Your task to perform on an android device: Open Chrome and go to settings Image 0: 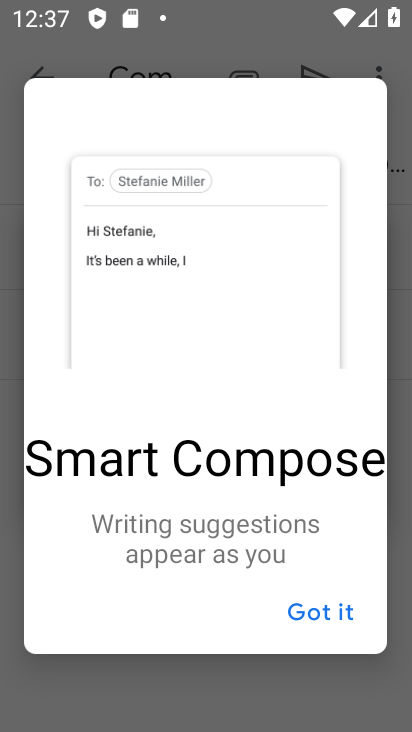
Step 0: press home button
Your task to perform on an android device: Open Chrome and go to settings Image 1: 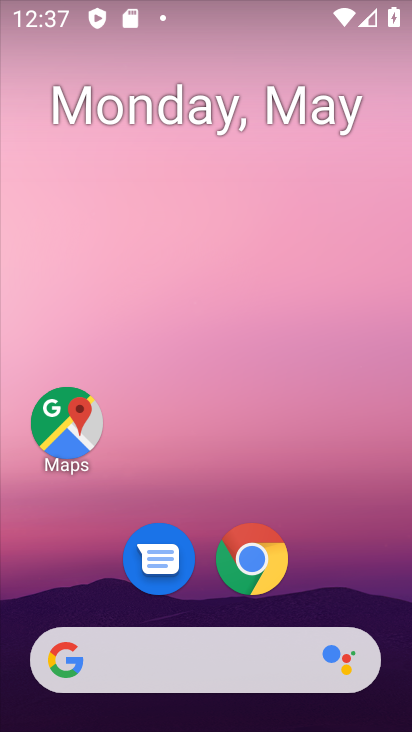
Step 1: click (267, 551)
Your task to perform on an android device: Open Chrome and go to settings Image 2: 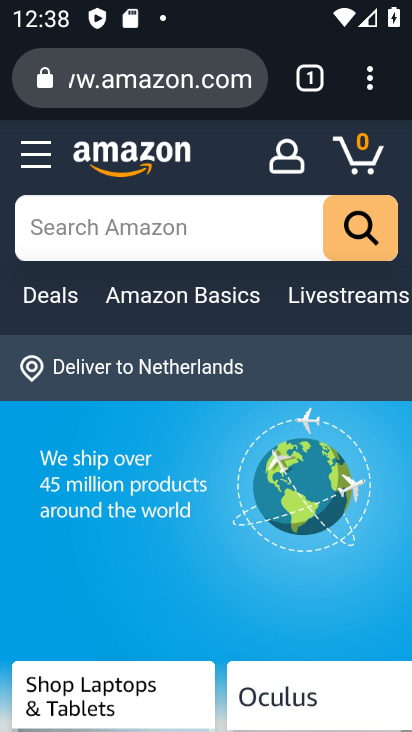
Step 2: click (364, 86)
Your task to perform on an android device: Open Chrome and go to settings Image 3: 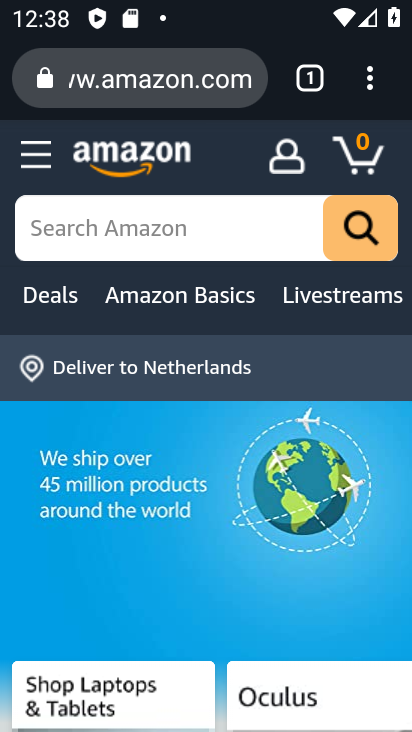
Step 3: click (357, 83)
Your task to perform on an android device: Open Chrome and go to settings Image 4: 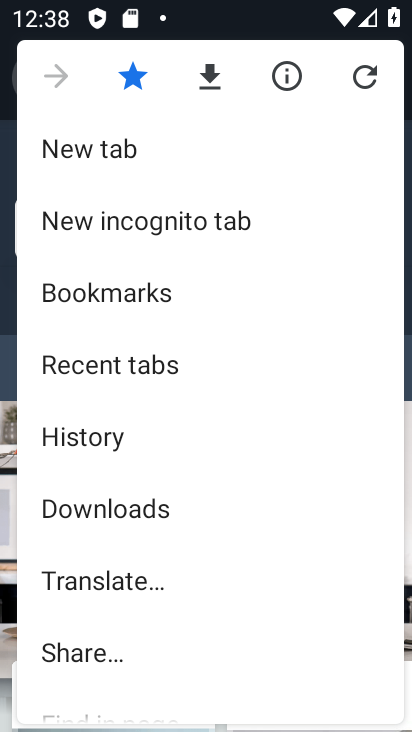
Step 4: drag from (196, 683) to (230, 98)
Your task to perform on an android device: Open Chrome and go to settings Image 5: 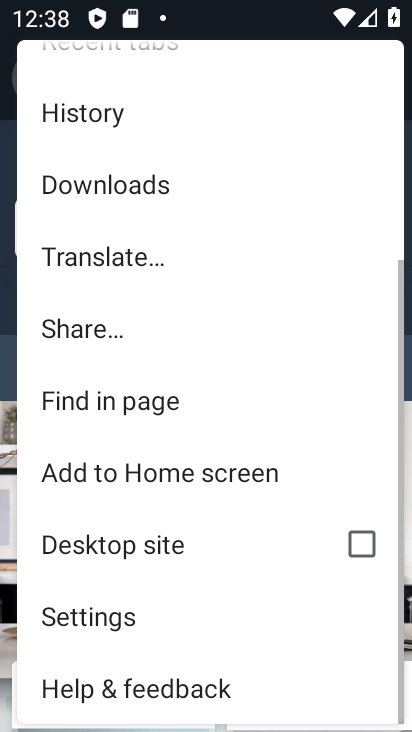
Step 5: click (155, 615)
Your task to perform on an android device: Open Chrome and go to settings Image 6: 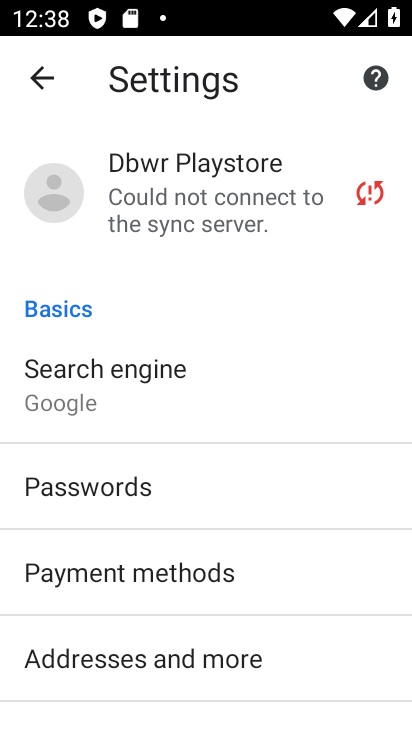
Step 6: task complete